Your task to perform on an android device: Open maps Image 0: 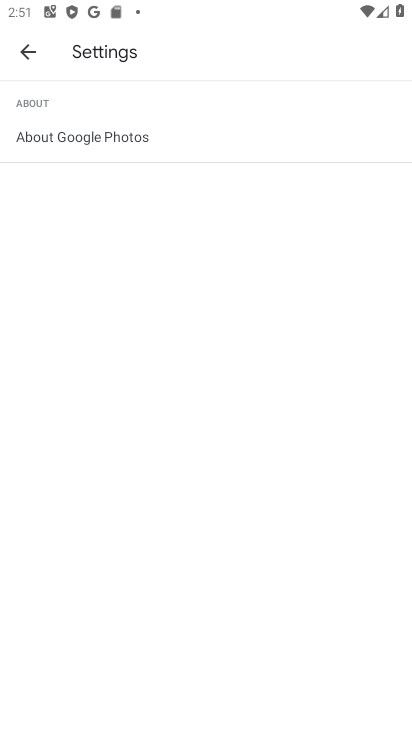
Step 0: press home button
Your task to perform on an android device: Open maps Image 1: 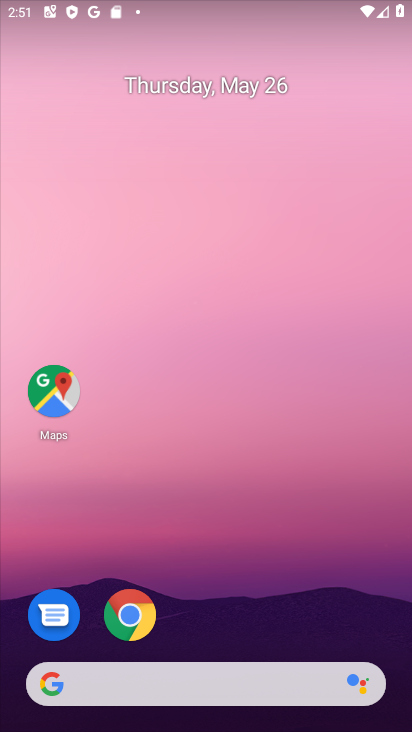
Step 1: click (59, 383)
Your task to perform on an android device: Open maps Image 2: 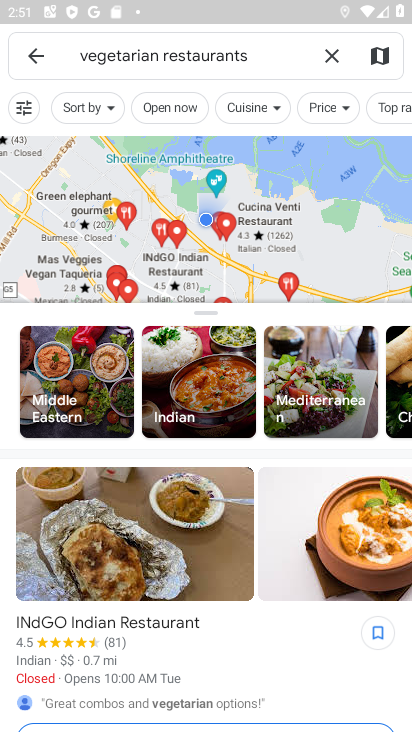
Step 2: task complete